Your task to perform on an android device: Open my contact list Image 0: 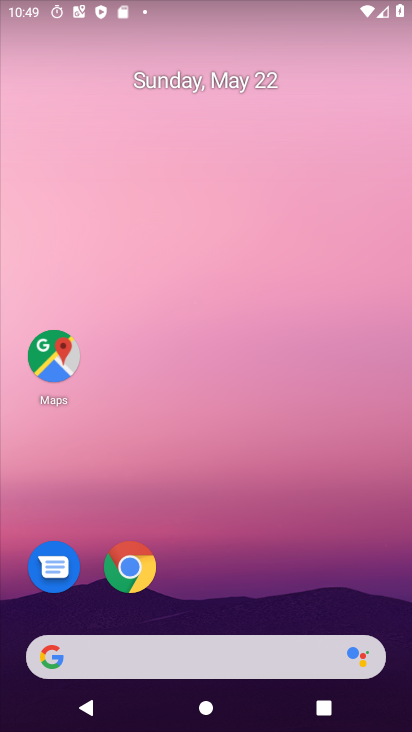
Step 0: drag from (263, 556) to (243, 140)
Your task to perform on an android device: Open my contact list Image 1: 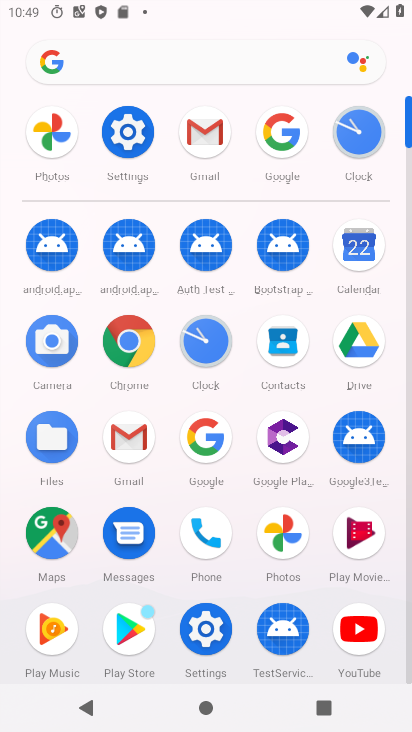
Step 1: click (287, 353)
Your task to perform on an android device: Open my contact list Image 2: 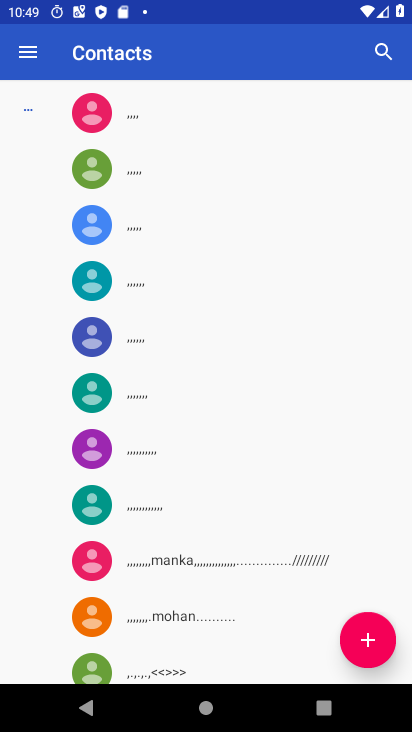
Step 2: task complete